Your task to perform on an android device: turn on translation in the chrome app Image 0: 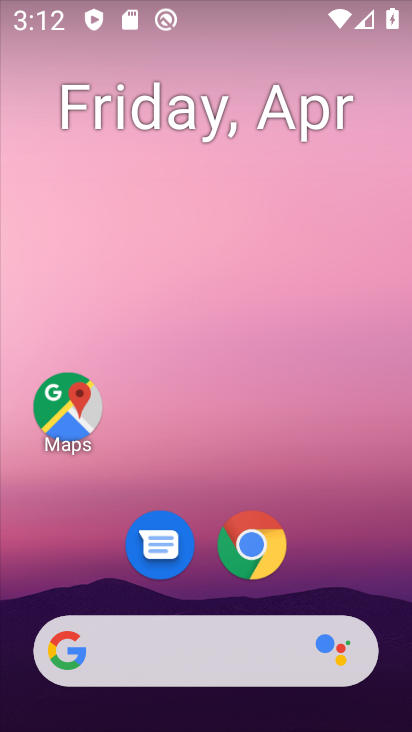
Step 0: click (259, 542)
Your task to perform on an android device: turn on translation in the chrome app Image 1: 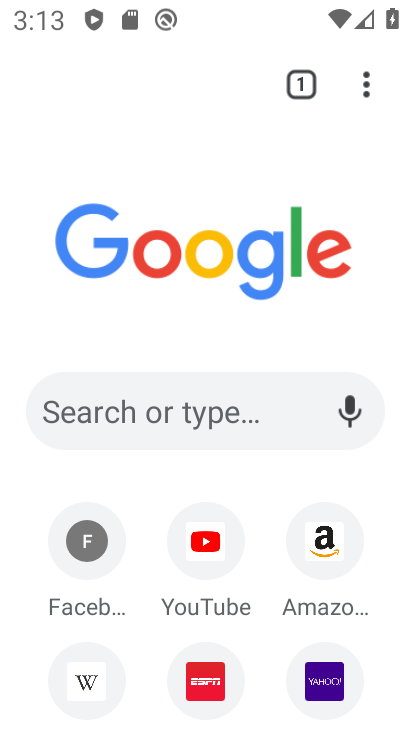
Step 1: click (367, 90)
Your task to perform on an android device: turn on translation in the chrome app Image 2: 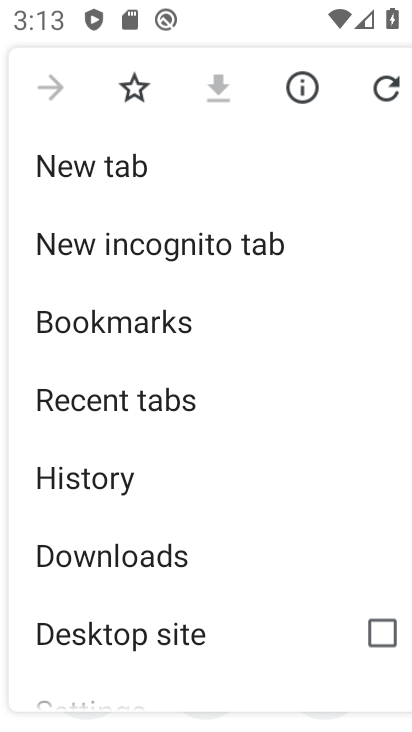
Step 2: drag from (235, 656) to (285, 289)
Your task to perform on an android device: turn on translation in the chrome app Image 3: 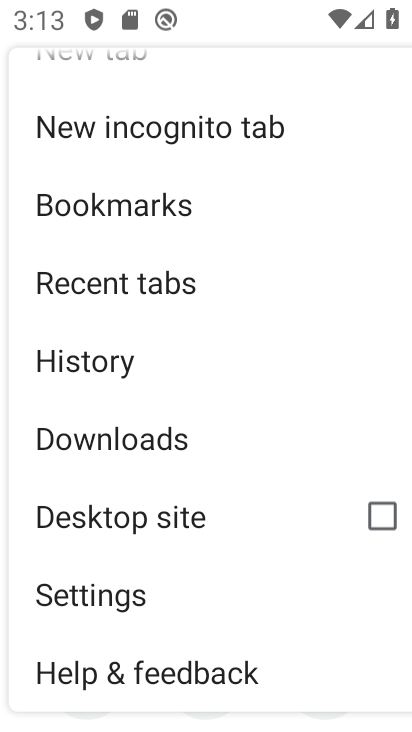
Step 3: click (106, 607)
Your task to perform on an android device: turn on translation in the chrome app Image 4: 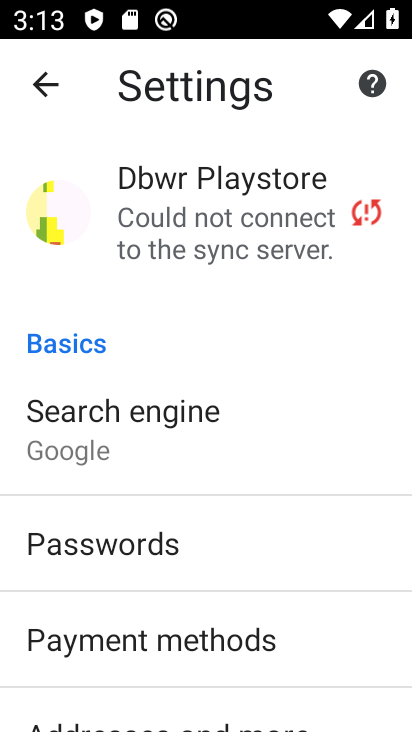
Step 4: drag from (324, 682) to (307, 306)
Your task to perform on an android device: turn on translation in the chrome app Image 5: 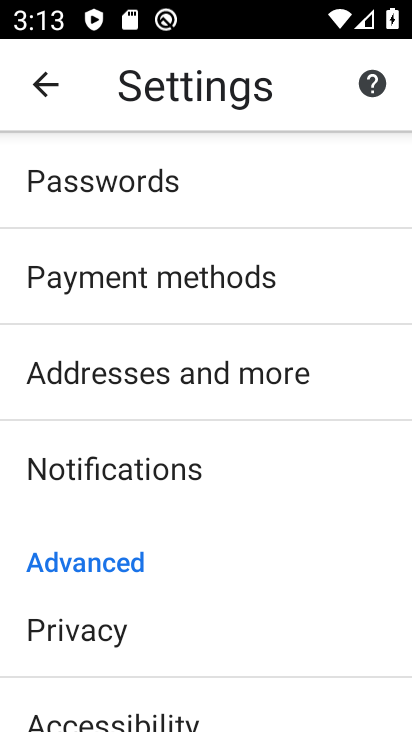
Step 5: drag from (287, 620) to (319, 266)
Your task to perform on an android device: turn on translation in the chrome app Image 6: 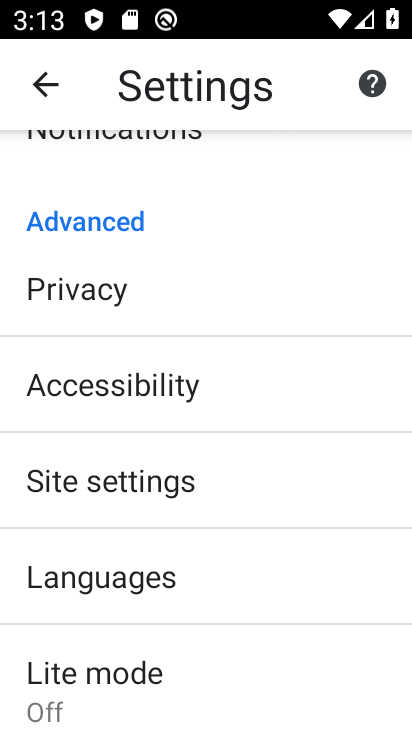
Step 6: click (61, 590)
Your task to perform on an android device: turn on translation in the chrome app Image 7: 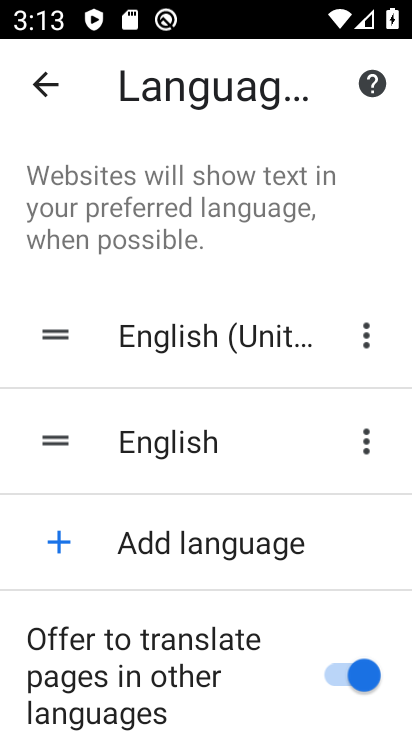
Step 7: task complete